Your task to perform on an android device: find photos in the google photos app Image 0: 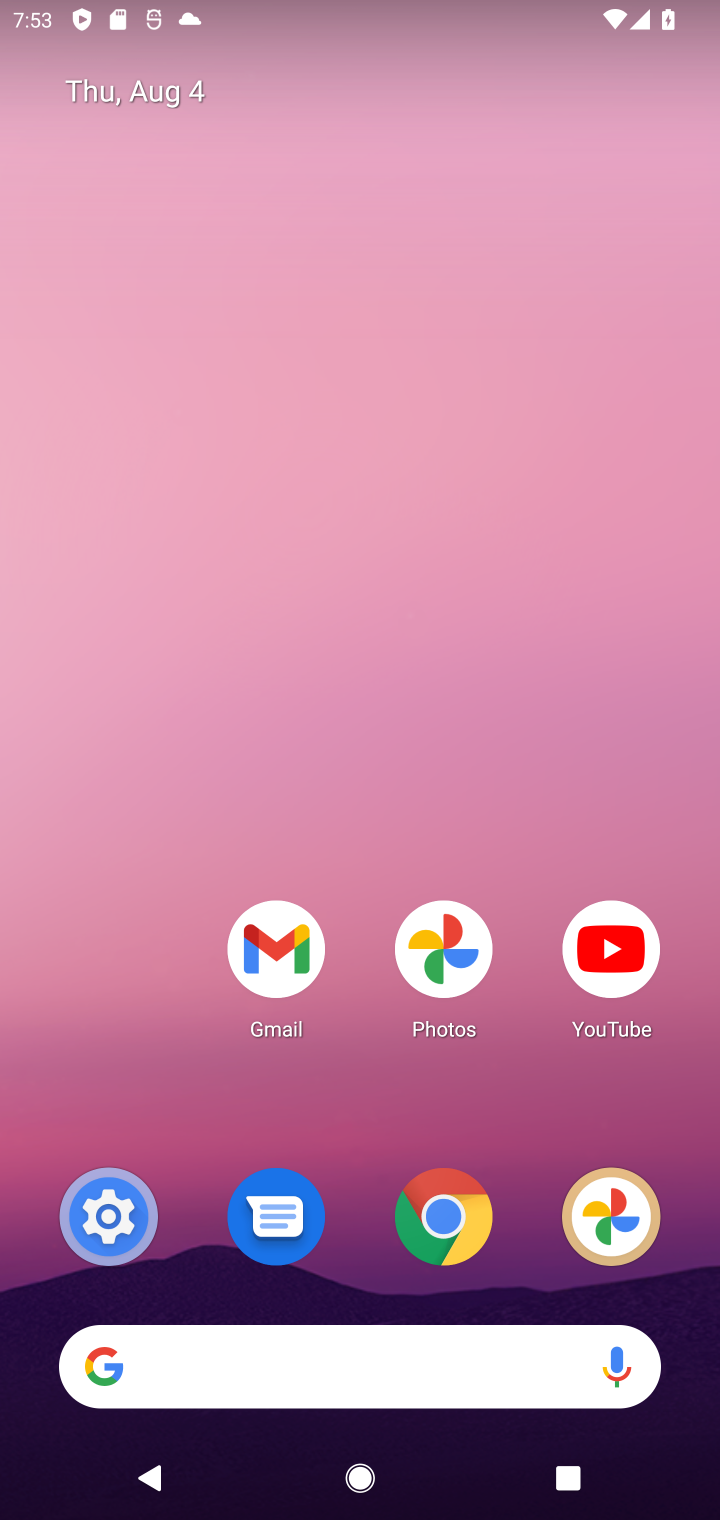
Step 0: drag from (393, 915) to (445, 93)
Your task to perform on an android device: find photos in the google photos app Image 1: 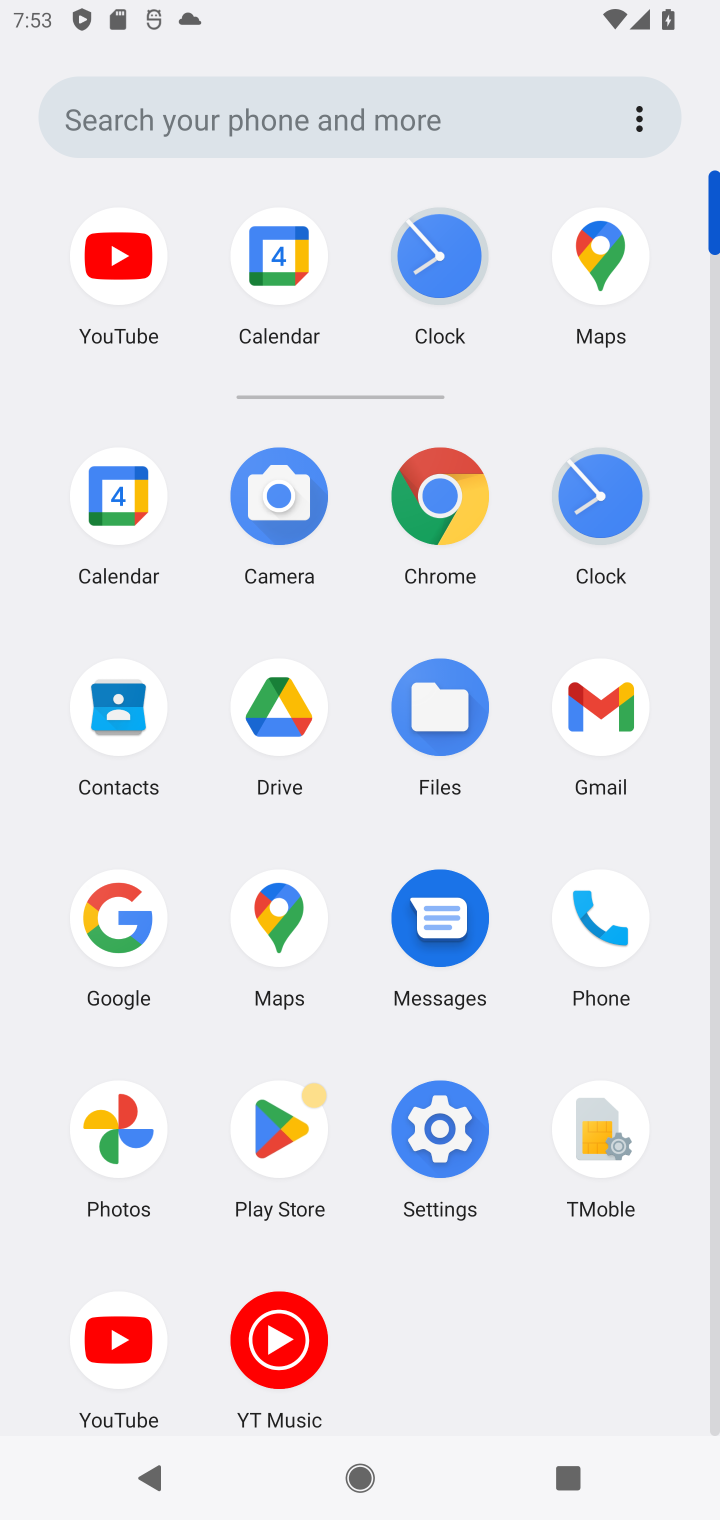
Step 1: click (103, 1126)
Your task to perform on an android device: find photos in the google photos app Image 2: 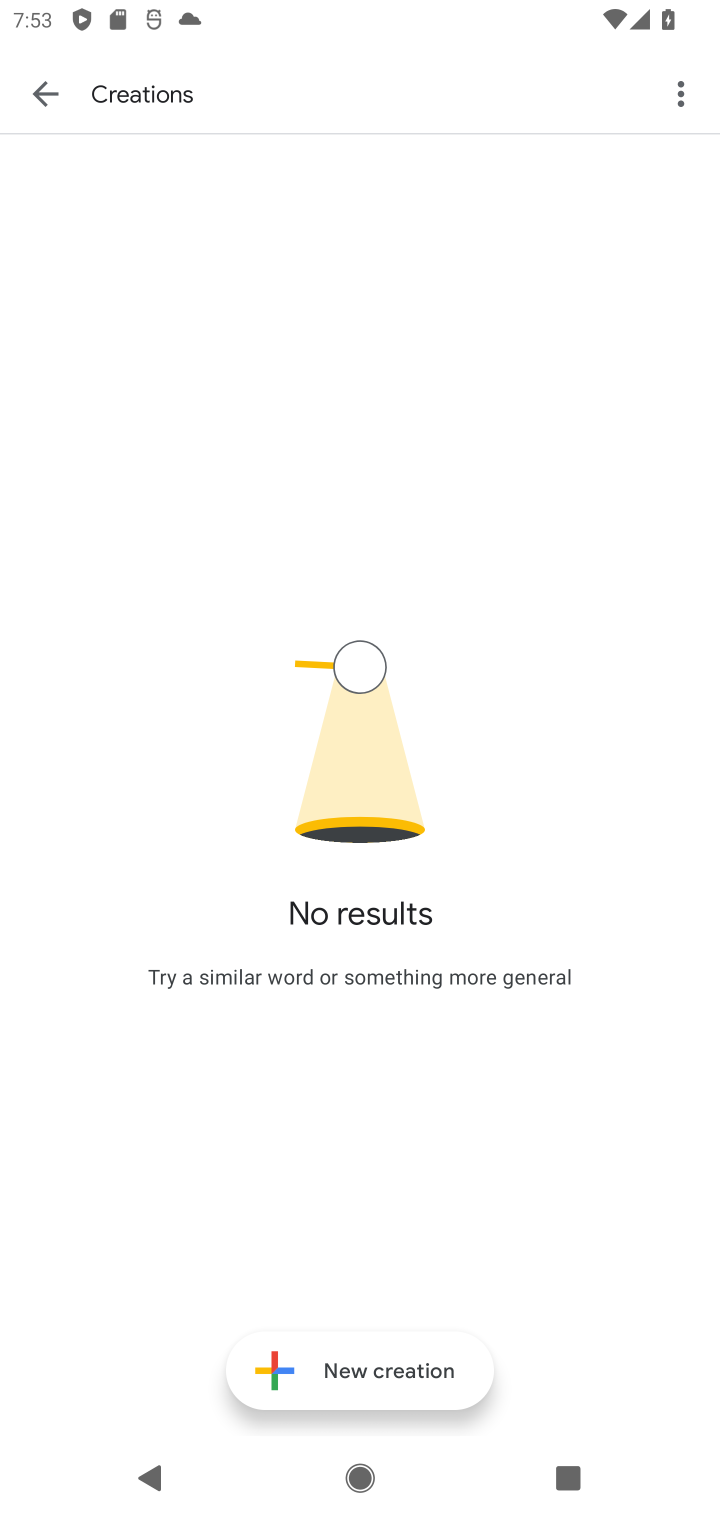
Step 2: click (47, 98)
Your task to perform on an android device: find photos in the google photos app Image 3: 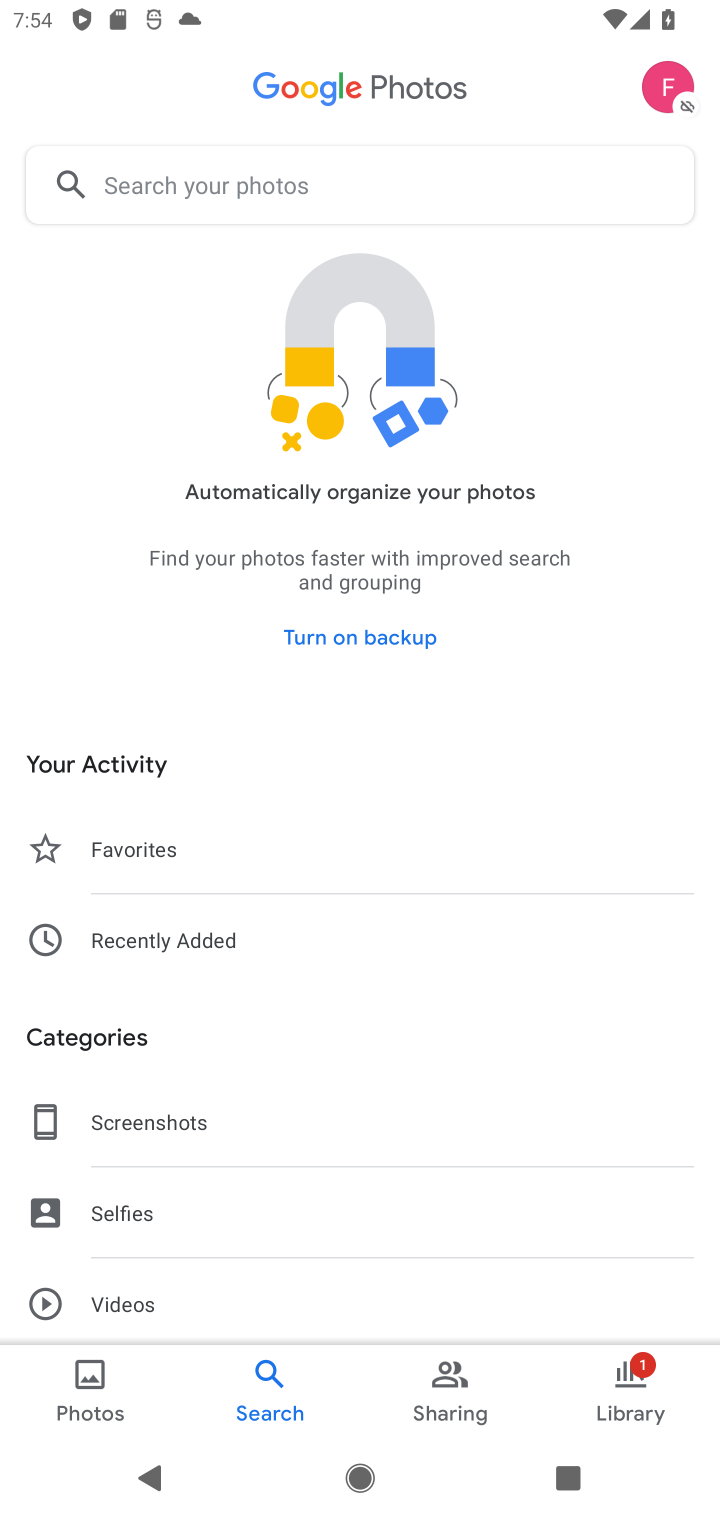
Step 3: click (100, 1378)
Your task to perform on an android device: find photos in the google photos app Image 4: 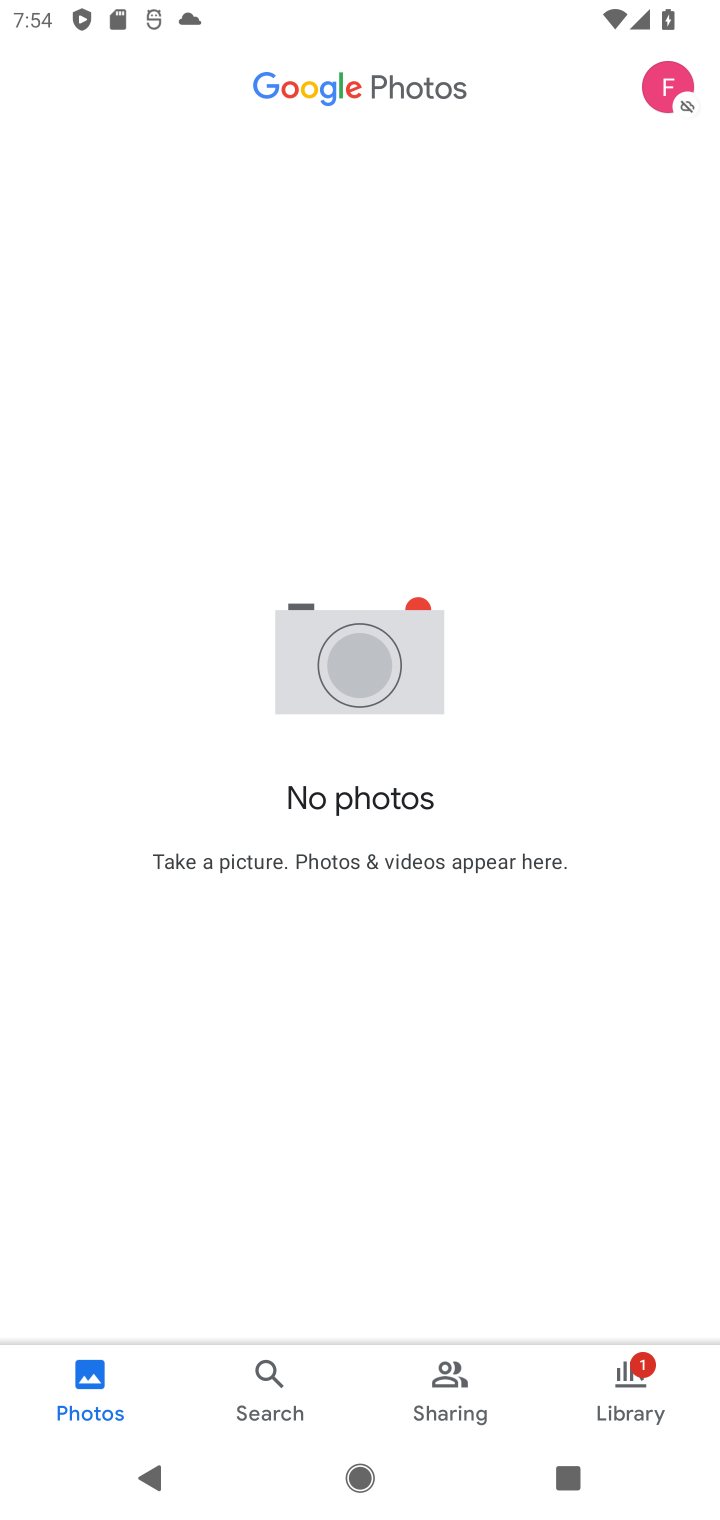
Step 4: task complete